Your task to perform on an android device: open chrome privacy settings Image 0: 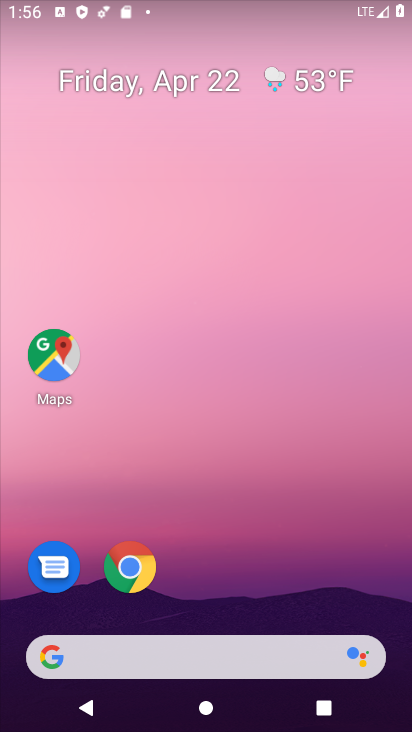
Step 0: click (345, 550)
Your task to perform on an android device: open chrome privacy settings Image 1: 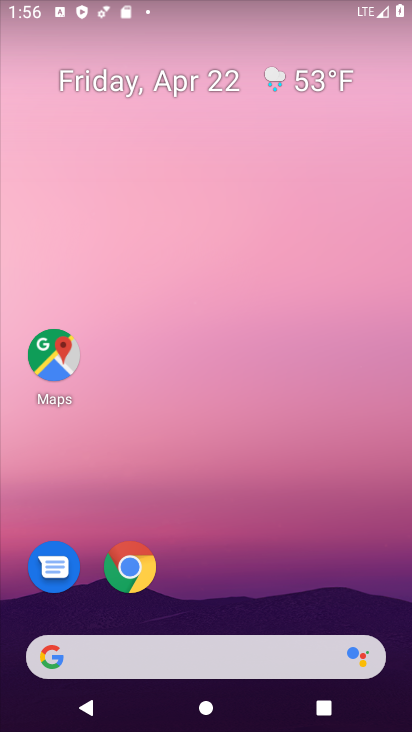
Step 1: click (127, 568)
Your task to perform on an android device: open chrome privacy settings Image 2: 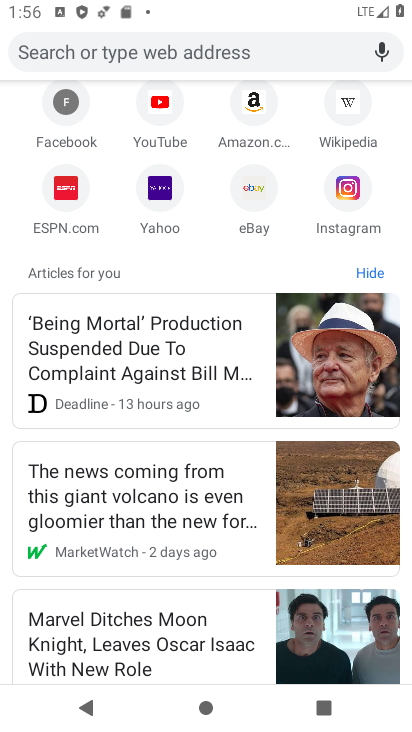
Step 2: drag from (296, 172) to (237, 457)
Your task to perform on an android device: open chrome privacy settings Image 3: 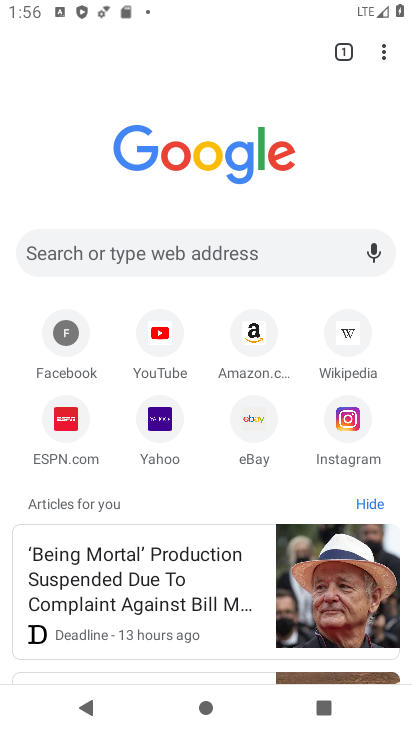
Step 3: click (331, 184)
Your task to perform on an android device: open chrome privacy settings Image 4: 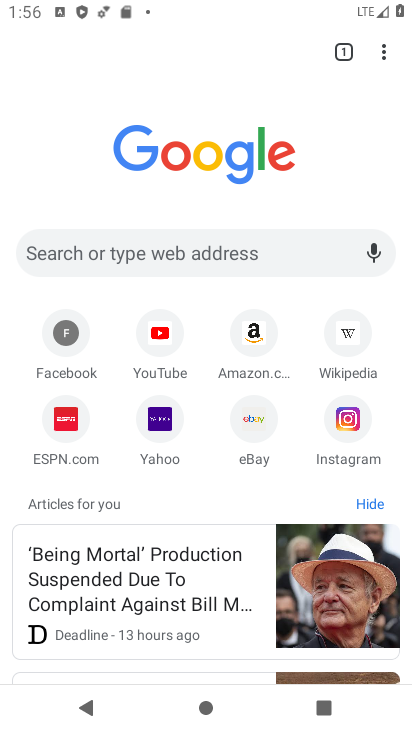
Step 4: click (386, 54)
Your task to perform on an android device: open chrome privacy settings Image 5: 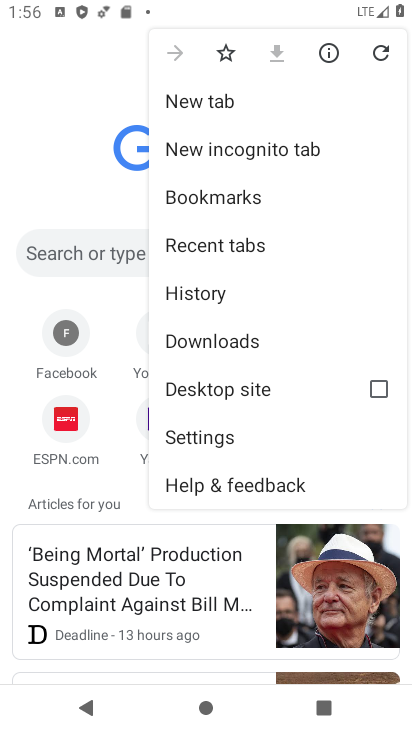
Step 5: click (220, 444)
Your task to perform on an android device: open chrome privacy settings Image 6: 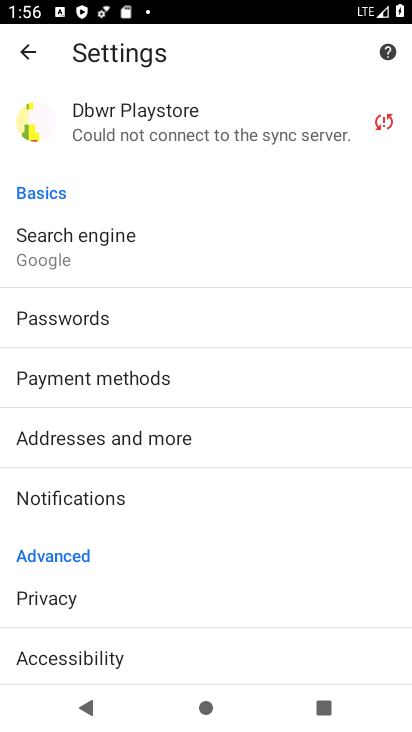
Step 6: click (43, 607)
Your task to perform on an android device: open chrome privacy settings Image 7: 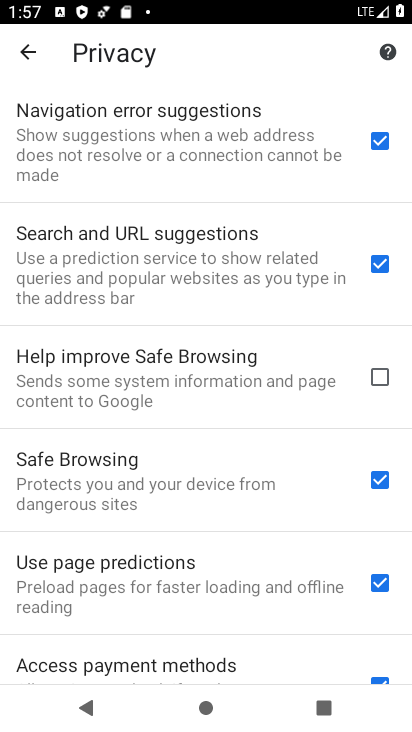
Step 7: task complete